Your task to perform on an android device: Search for pizza restaurants on Maps Image 0: 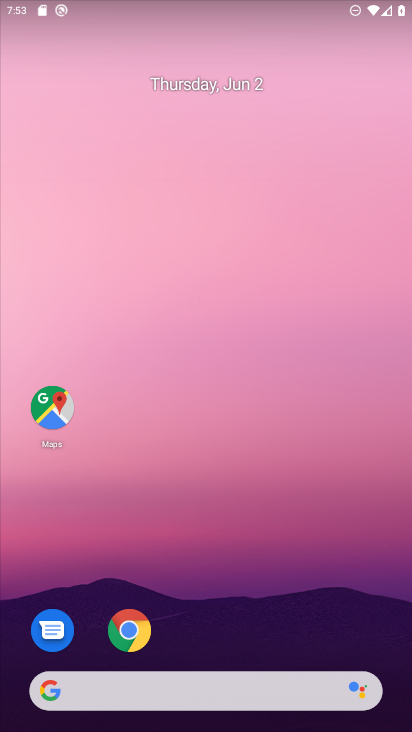
Step 0: click (45, 421)
Your task to perform on an android device: Search for pizza restaurants on Maps Image 1: 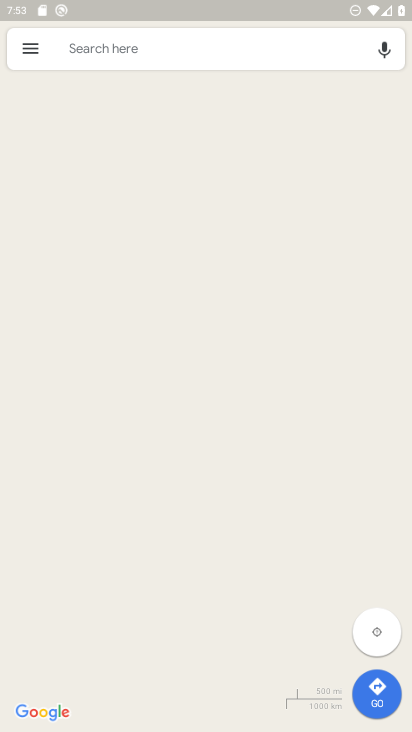
Step 1: click (250, 50)
Your task to perform on an android device: Search for pizza restaurants on Maps Image 2: 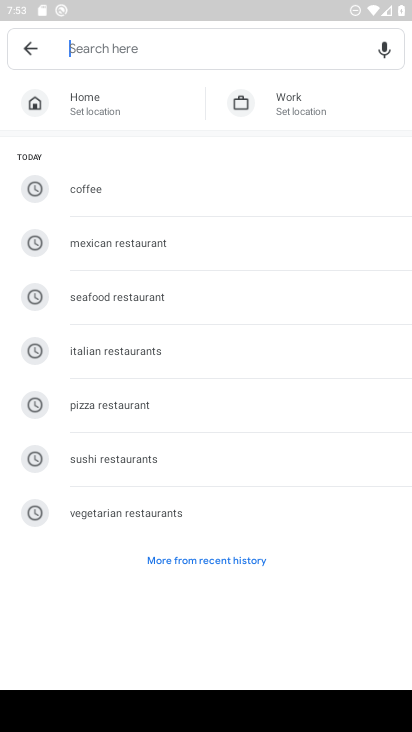
Step 2: type "pizza restaurants"
Your task to perform on an android device: Search for pizza restaurants on Maps Image 3: 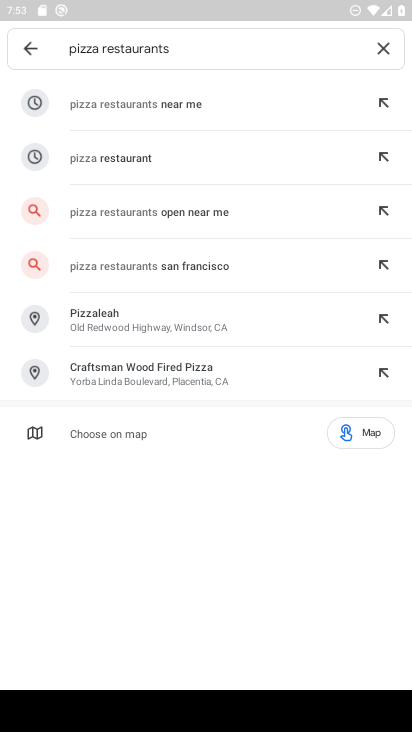
Step 3: click (123, 154)
Your task to perform on an android device: Search for pizza restaurants on Maps Image 4: 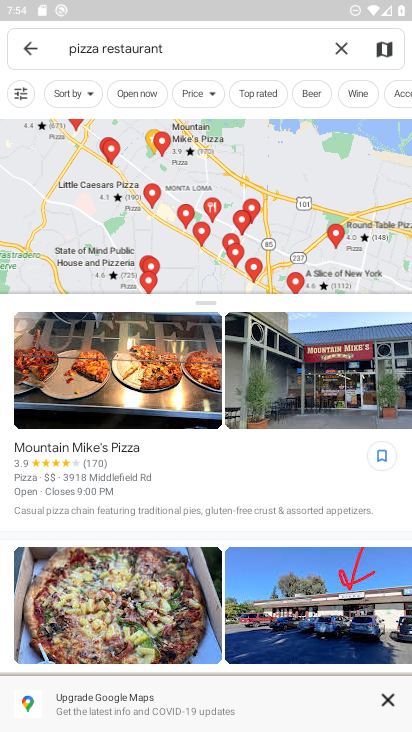
Step 4: task complete